Your task to perform on an android device: Turn on the flashlight Image 0: 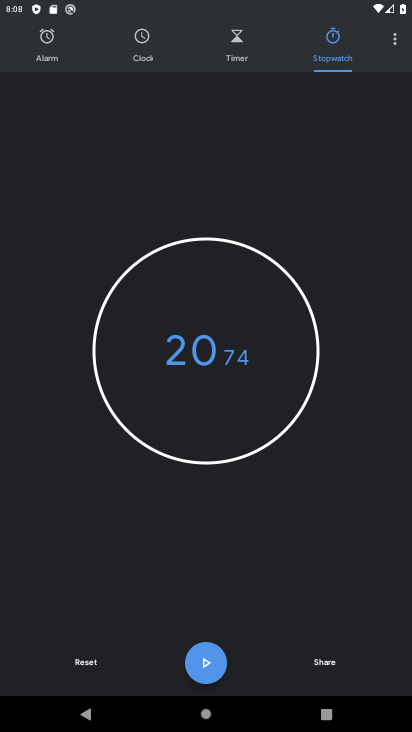
Step 0: press home button
Your task to perform on an android device: Turn on the flashlight Image 1: 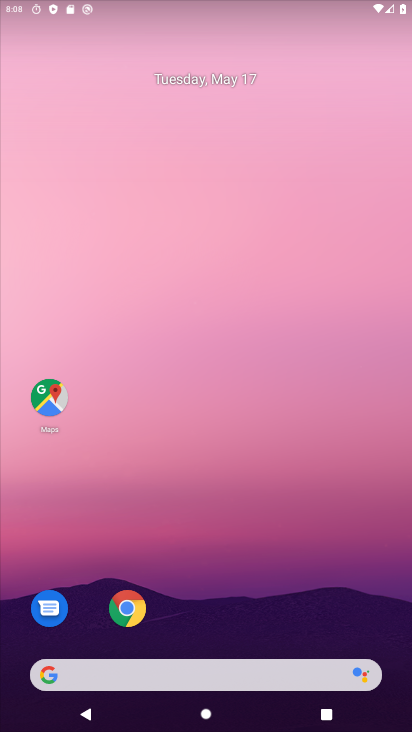
Step 1: drag from (366, 588) to (323, 153)
Your task to perform on an android device: Turn on the flashlight Image 2: 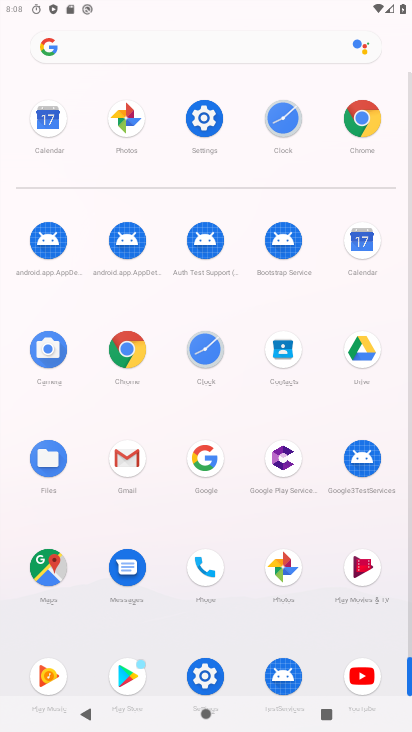
Step 2: click (203, 110)
Your task to perform on an android device: Turn on the flashlight Image 3: 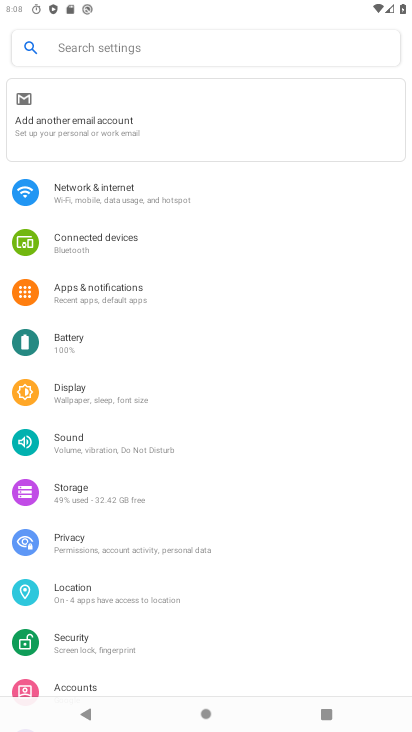
Step 3: click (108, 50)
Your task to perform on an android device: Turn on the flashlight Image 4: 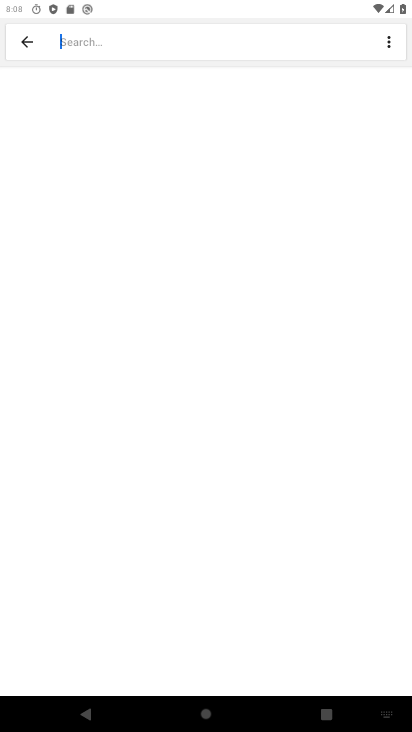
Step 4: type "flashlight"
Your task to perform on an android device: Turn on the flashlight Image 5: 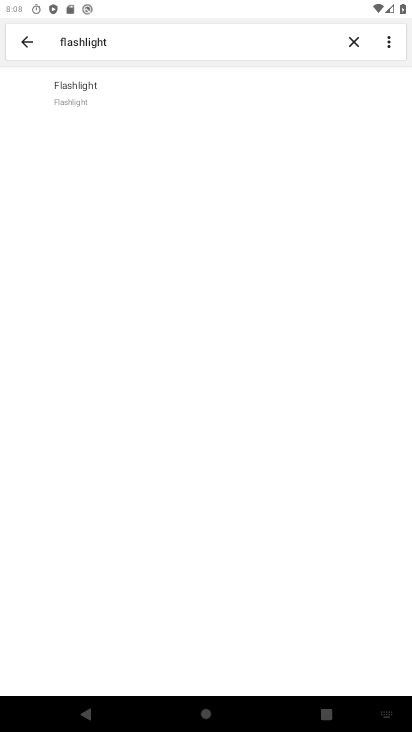
Step 5: click (92, 93)
Your task to perform on an android device: Turn on the flashlight Image 6: 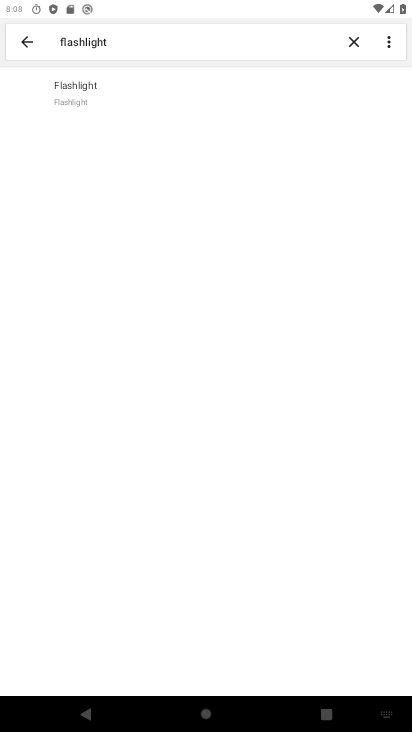
Step 6: task complete